Your task to perform on an android device: Open Chrome and go to settings Image 0: 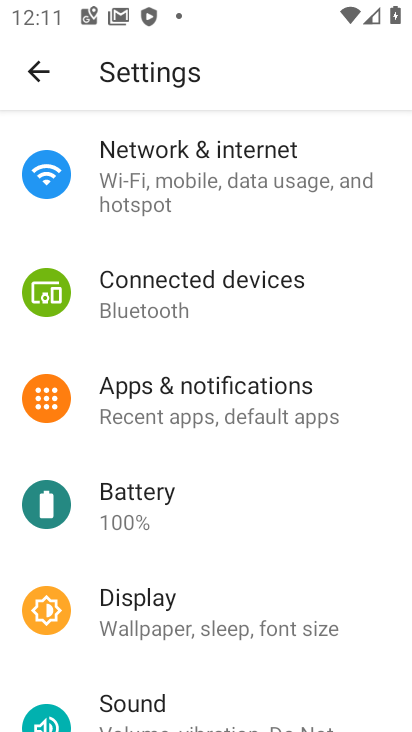
Step 0: drag from (145, 649) to (219, 181)
Your task to perform on an android device: Open Chrome and go to settings Image 1: 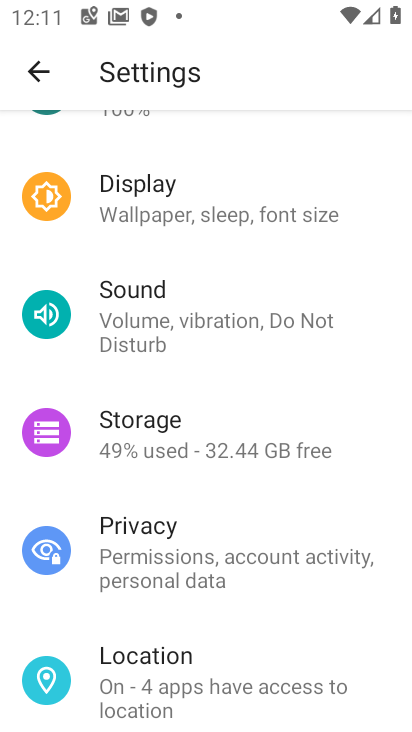
Step 1: drag from (182, 704) to (221, 308)
Your task to perform on an android device: Open Chrome and go to settings Image 2: 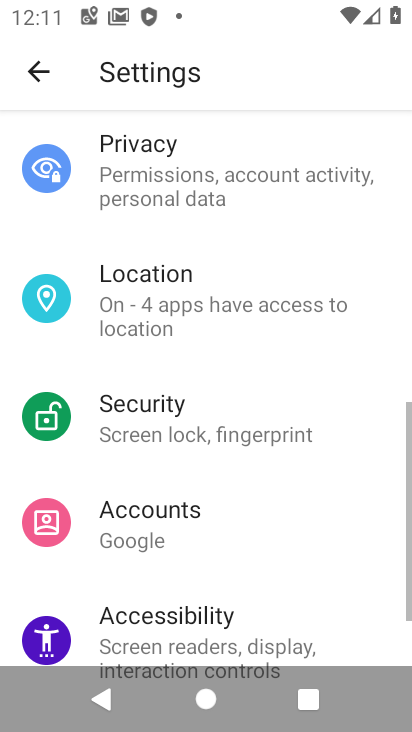
Step 2: drag from (234, 216) to (174, 684)
Your task to perform on an android device: Open Chrome and go to settings Image 3: 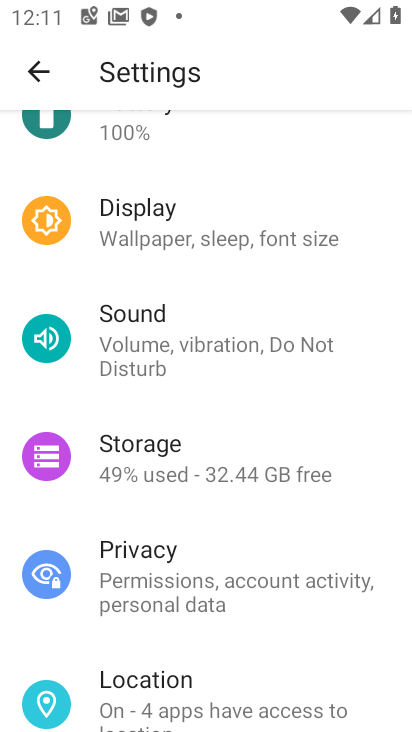
Step 3: press home button
Your task to perform on an android device: Open Chrome and go to settings Image 4: 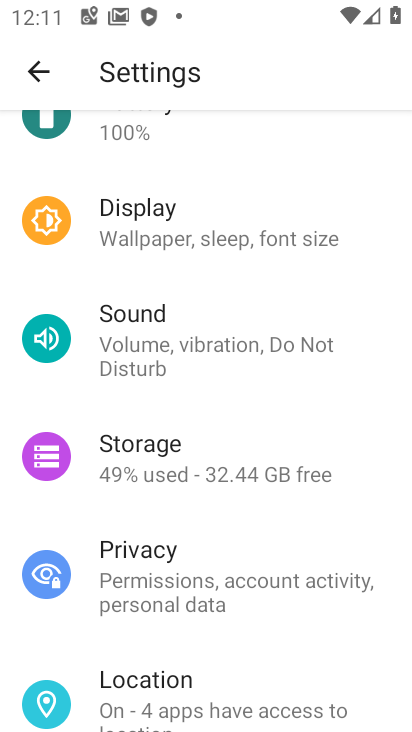
Step 4: click (410, 340)
Your task to perform on an android device: Open Chrome and go to settings Image 5: 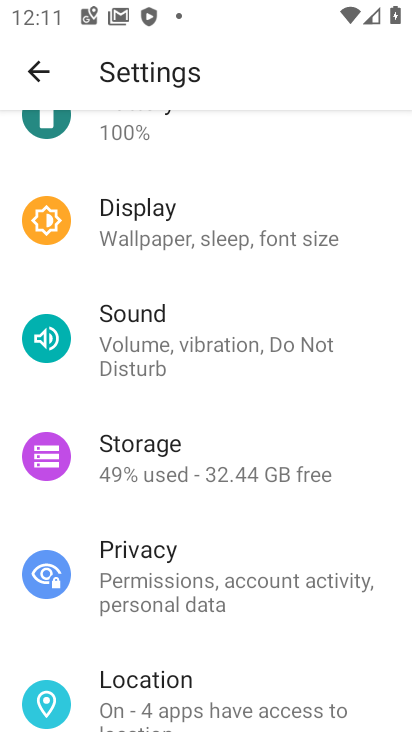
Step 5: drag from (147, 249) to (265, 729)
Your task to perform on an android device: Open Chrome and go to settings Image 6: 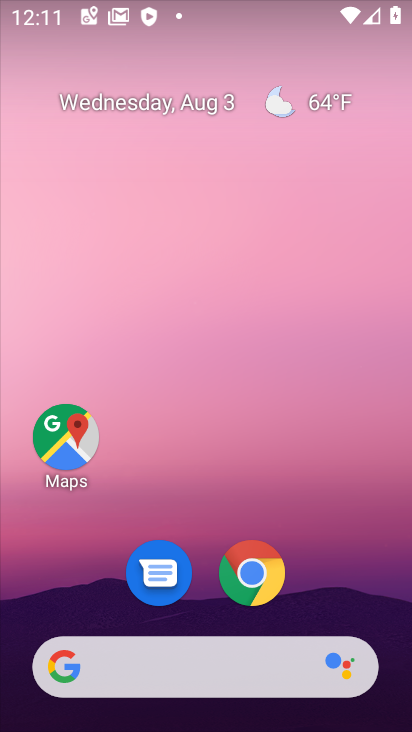
Step 6: click (249, 580)
Your task to perform on an android device: Open Chrome and go to settings Image 7: 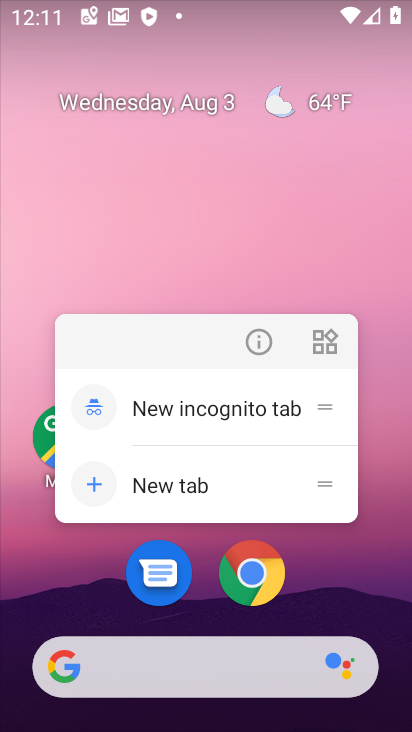
Step 7: click (260, 325)
Your task to perform on an android device: Open Chrome and go to settings Image 8: 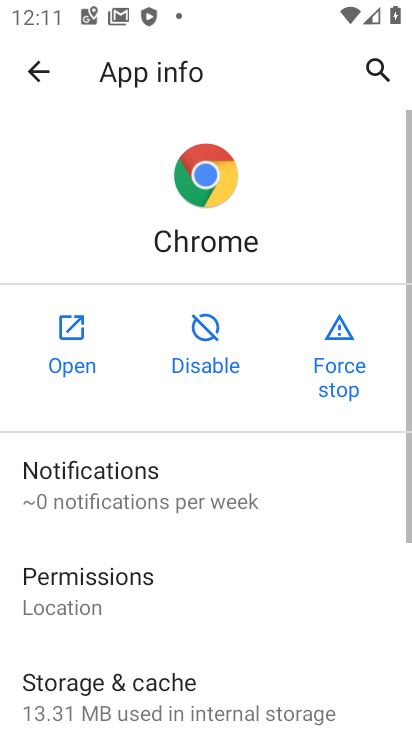
Step 8: click (50, 342)
Your task to perform on an android device: Open Chrome and go to settings Image 9: 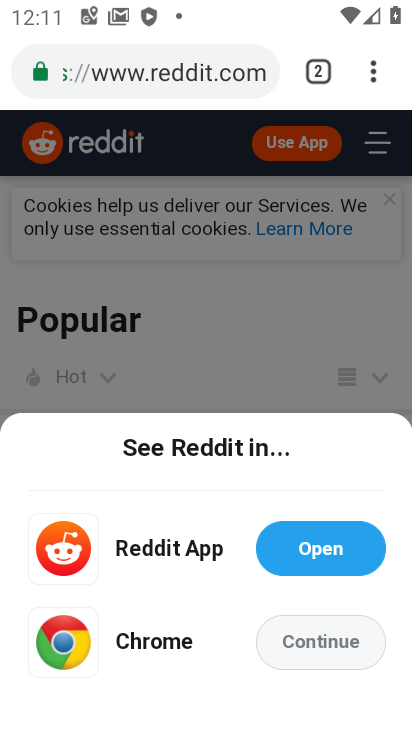
Step 9: task complete